Your task to perform on an android device: Go to accessibility settings Image 0: 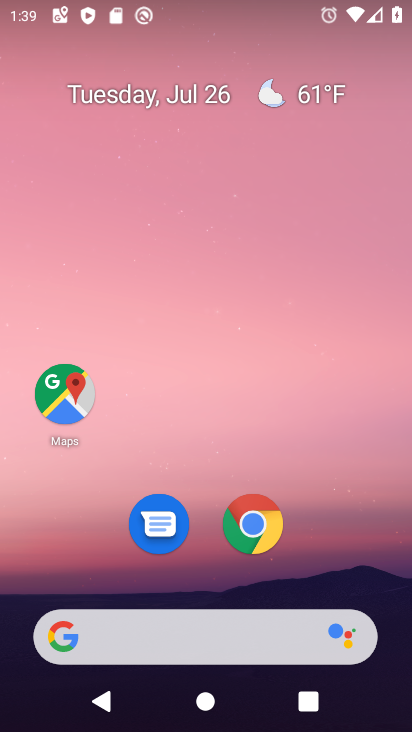
Step 0: press home button
Your task to perform on an android device: Go to accessibility settings Image 1: 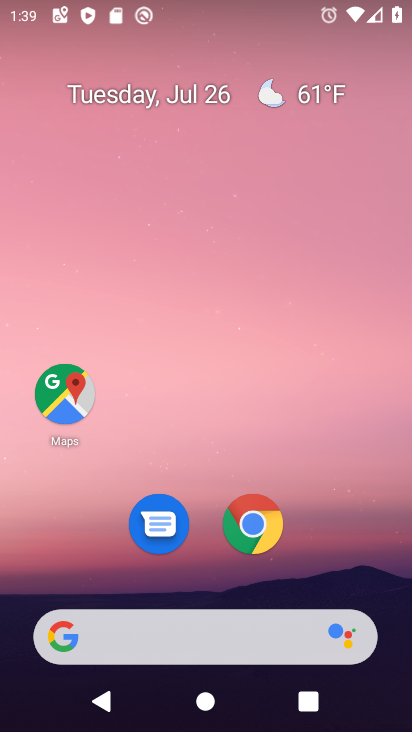
Step 1: drag from (179, 619) to (319, 148)
Your task to perform on an android device: Go to accessibility settings Image 2: 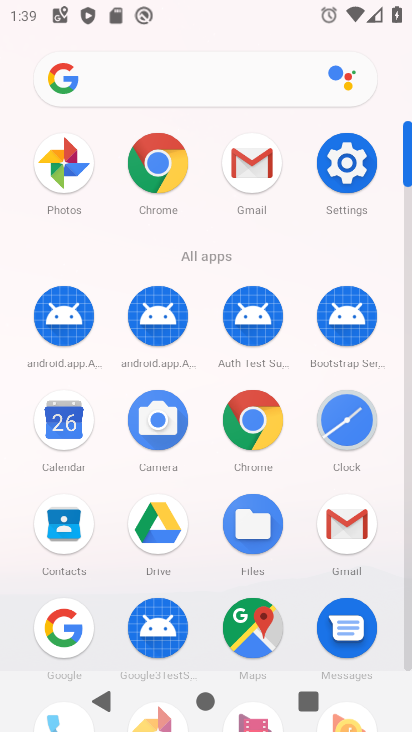
Step 2: click (336, 164)
Your task to perform on an android device: Go to accessibility settings Image 3: 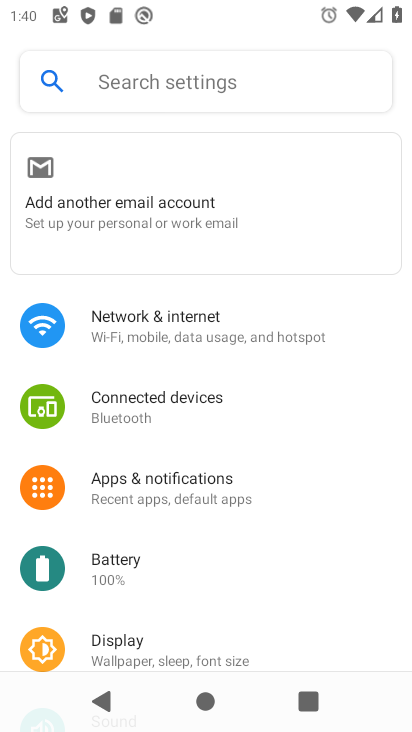
Step 3: drag from (264, 588) to (392, 65)
Your task to perform on an android device: Go to accessibility settings Image 4: 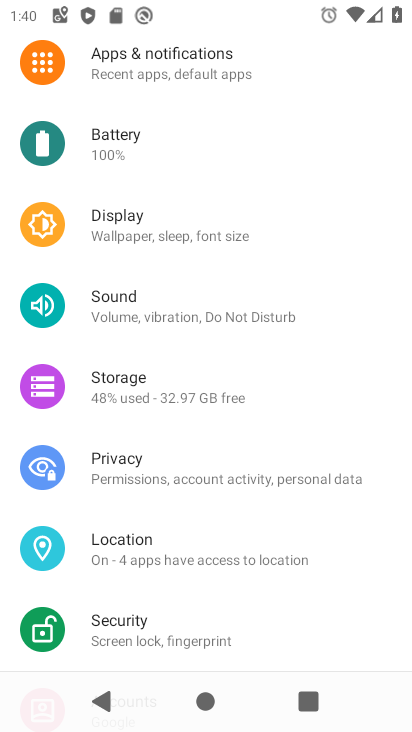
Step 4: drag from (233, 599) to (391, 51)
Your task to perform on an android device: Go to accessibility settings Image 5: 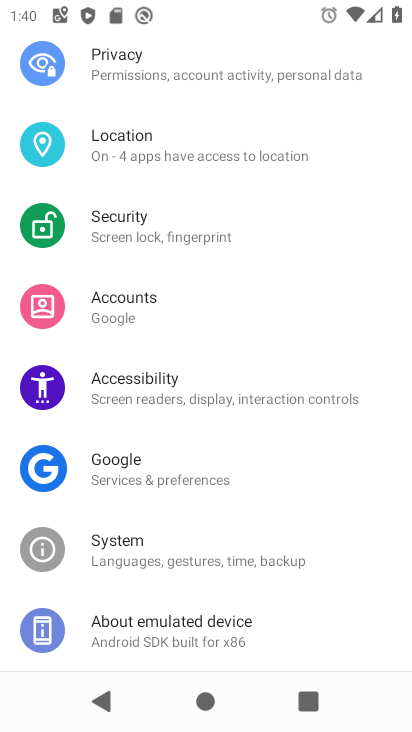
Step 5: click (144, 387)
Your task to perform on an android device: Go to accessibility settings Image 6: 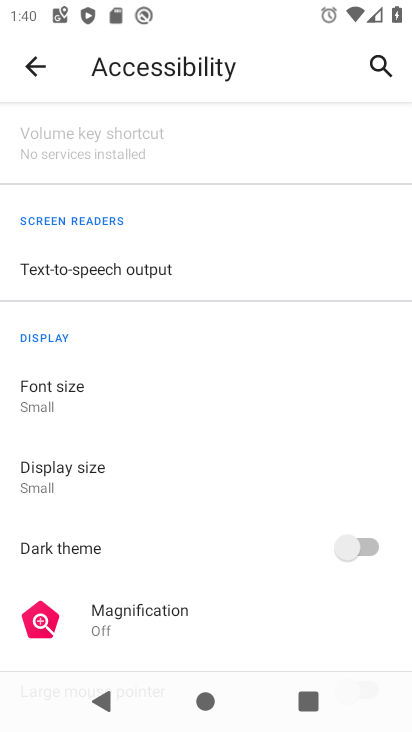
Step 6: task complete